Your task to perform on an android device: Open the calendar app, open the side menu, and click the "Day" option Image 0: 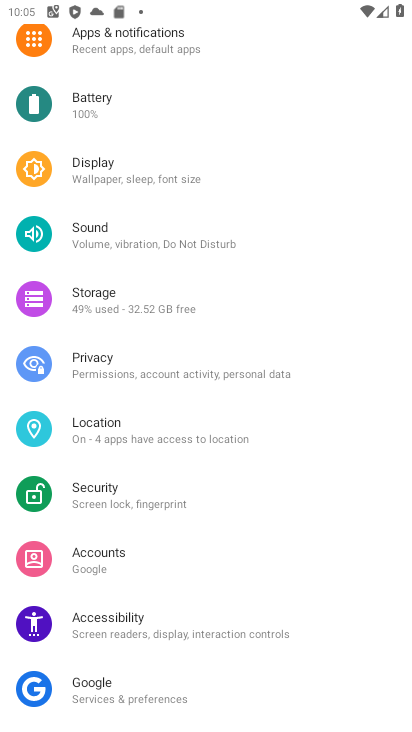
Step 0: press back button
Your task to perform on an android device: Open the calendar app, open the side menu, and click the "Day" option Image 1: 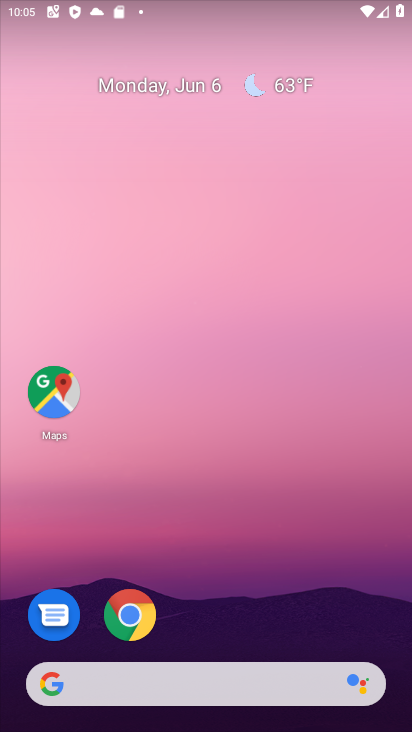
Step 1: drag from (242, 646) to (315, 63)
Your task to perform on an android device: Open the calendar app, open the side menu, and click the "Day" option Image 2: 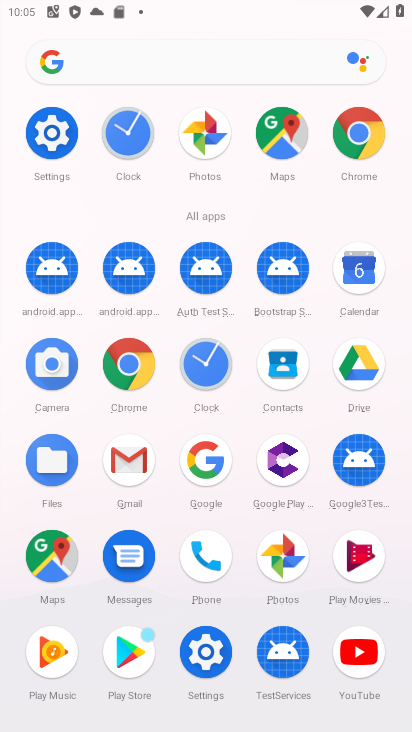
Step 2: click (367, 272)
Your task to perform on an android device: Open the calendar app, open the side menu, and click the "Day" option Image 3: 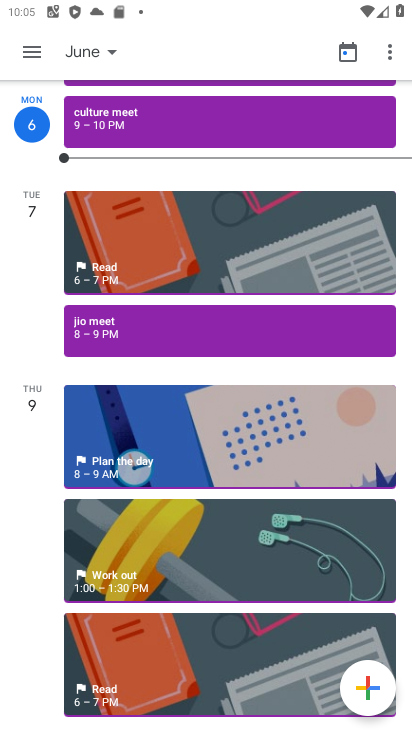
Step 3: click (17, 44)
Your task to perform on an android device: Open the calendar app, open the side menu, and click the "Day" option Image 4: 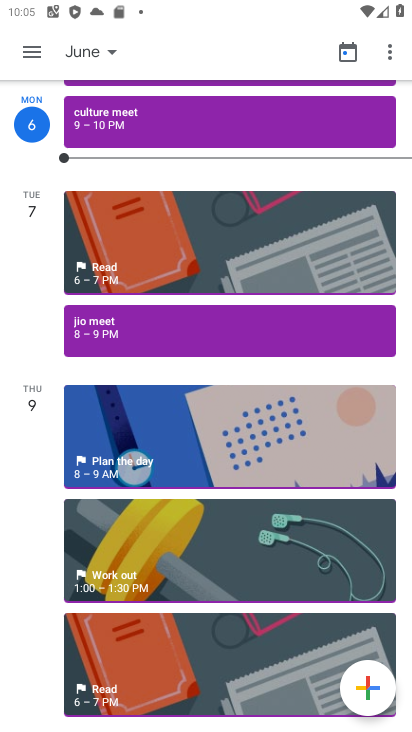
Step 4: click (29, 51)
Your task to perform on an android device: Open the calendar app, open the side menu, and click the "Day" option Image 5: 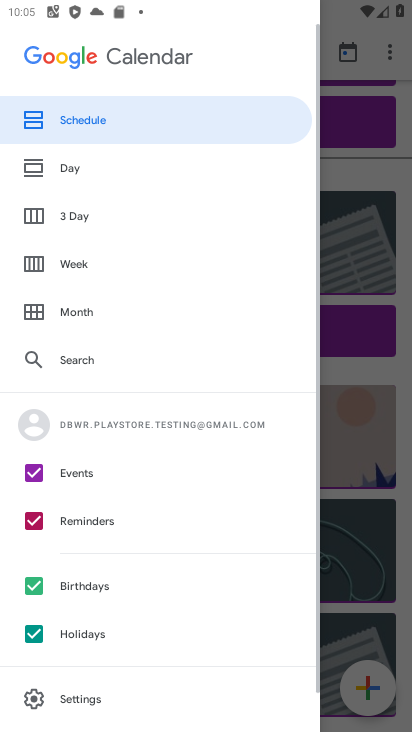
Step 5: click (83, 169)
Your task to perform on an android device: Open the calendar app, open the side menu, and click the "Day" option Image 6: 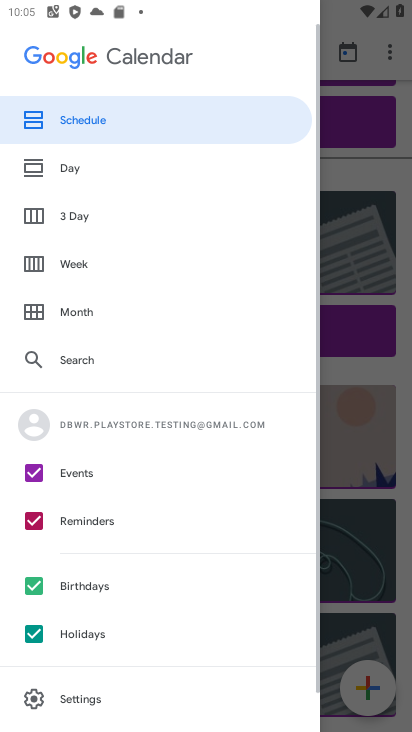
Step 6: click (82, 160)
Your task to perform on an android device: Open the calendar app, open the side menu, and click the "Day" option Image 7: 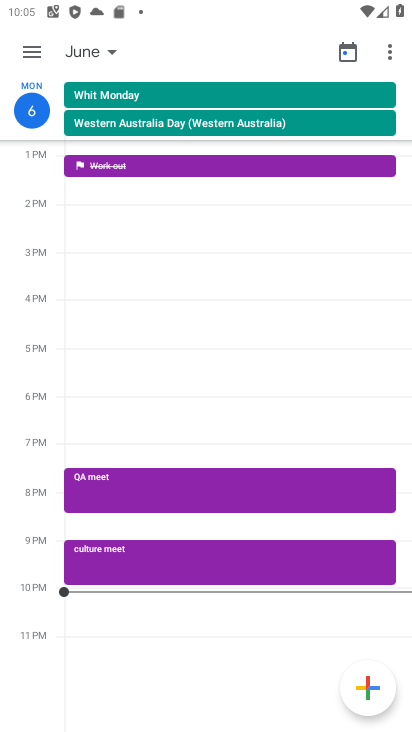
Step 7: task complete